Your task to perform on an android device: Go to Reddit.com Image 0: 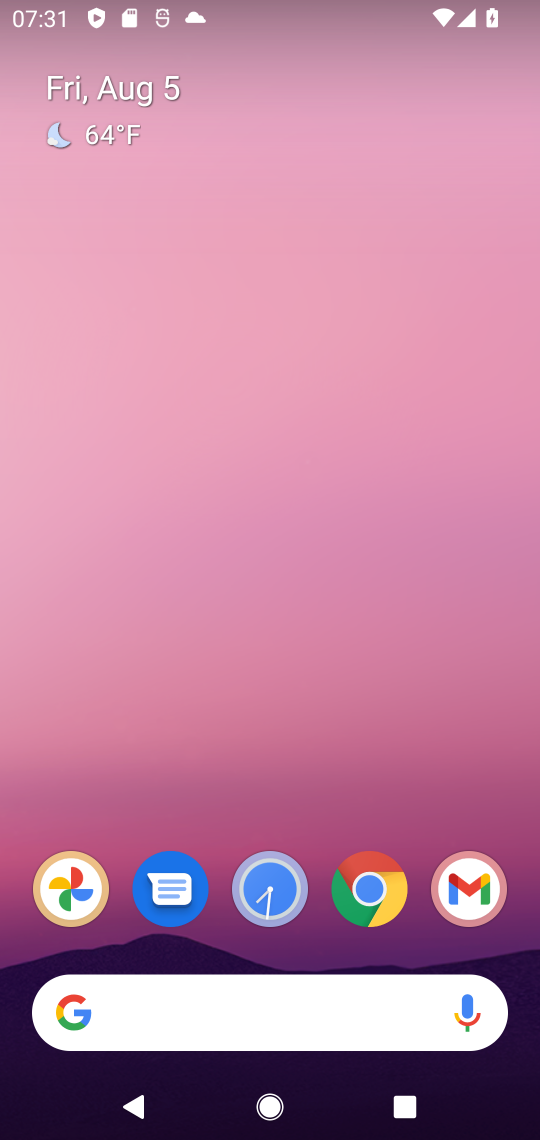
Step 0: drag from (241, 828) to (279, 392)
Your task to perform on an android device: Go to Reddit.com Image 1: 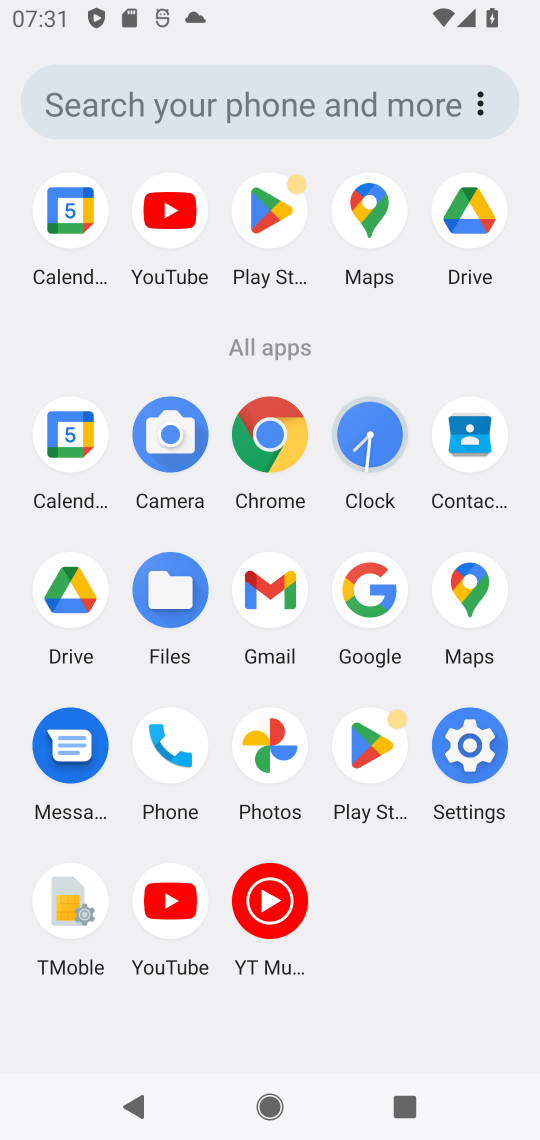
Step 1: click (351, 595)
Your task to perform on an android device: Go to Reddit.com Image 2: 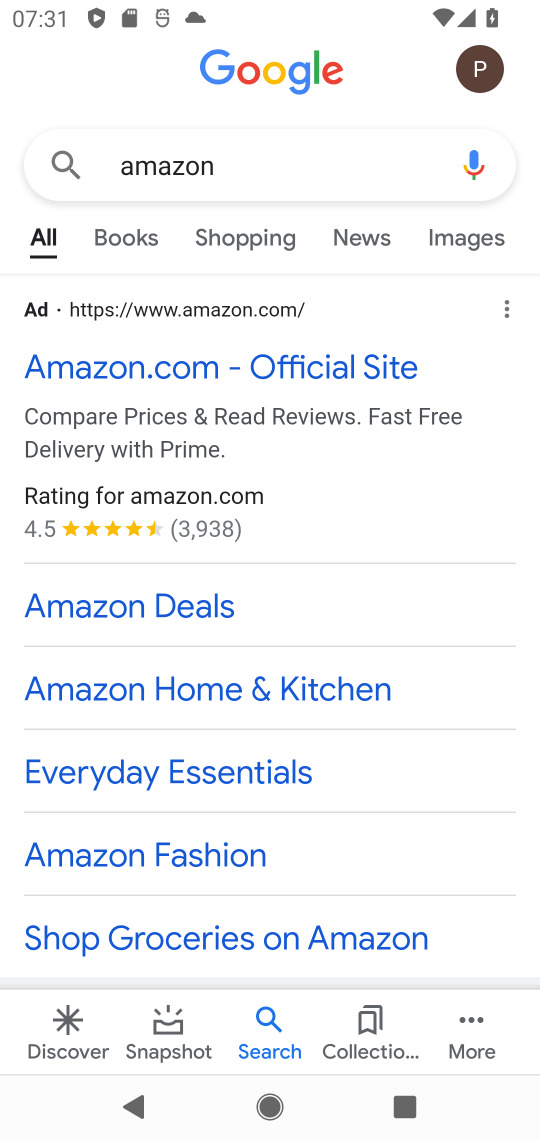
Step 2: click (193, 163)
Your task to perform on an android device: Go to Reddit.com Image 3: 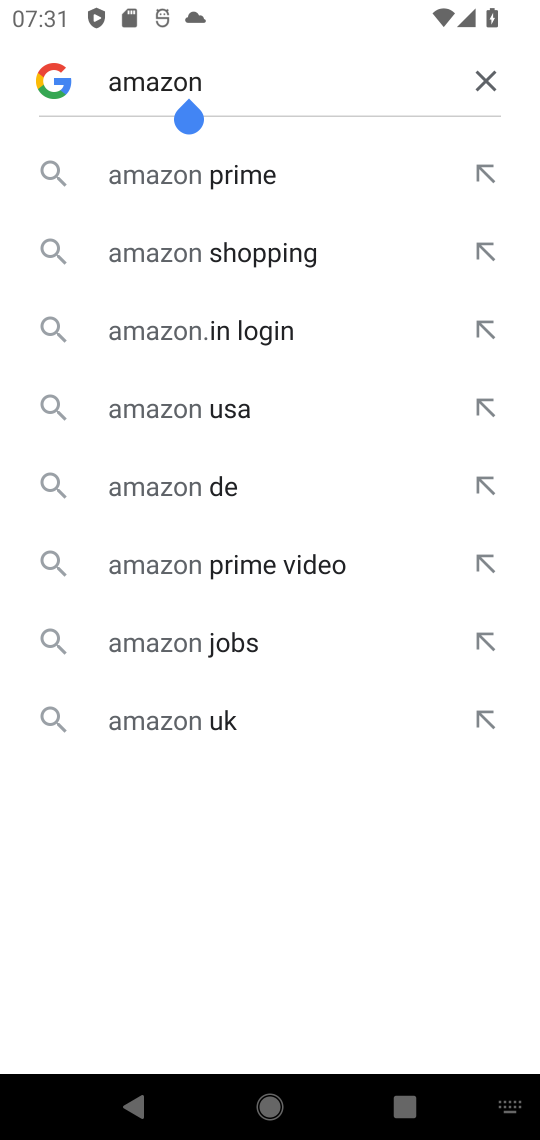
Step 3: click (479, 82)
Your task to perform on an android device: Go to Reddit.com Image 4: 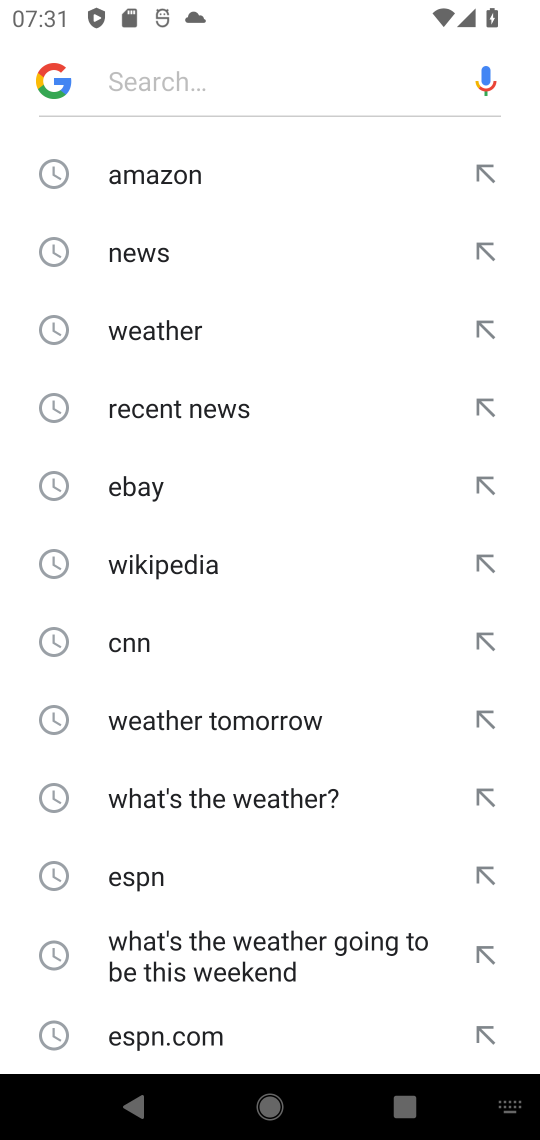
Step 4: drag from (209, 895) to (237, 265)
Your task to perform on an android device: Go to Reddit.com Image 5: 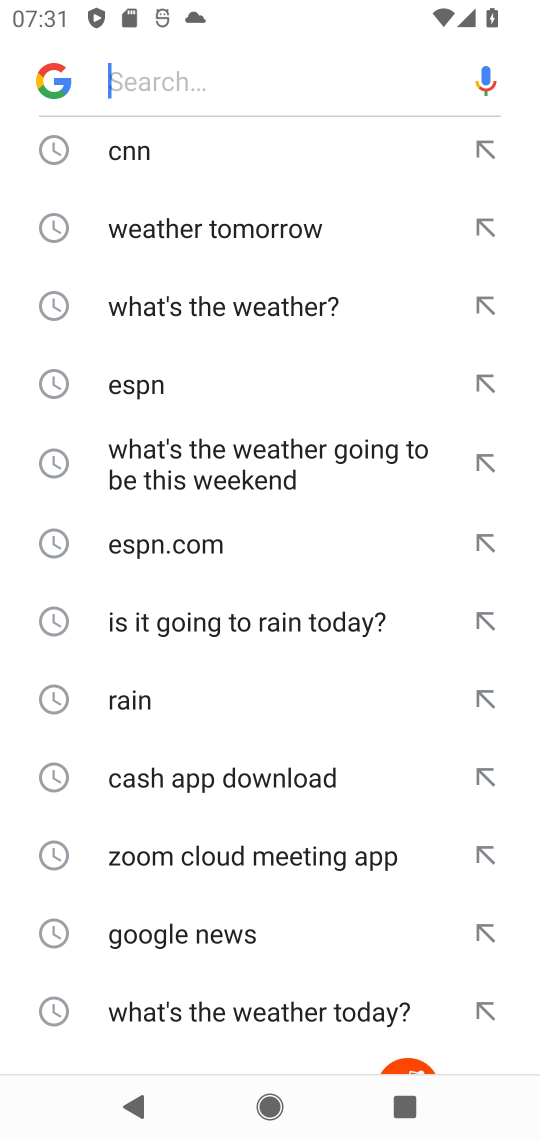
Step 5: drag from (248, 982) to (314, 413)
Your task to perform on an android device: Go to Reddit.com Image 6: 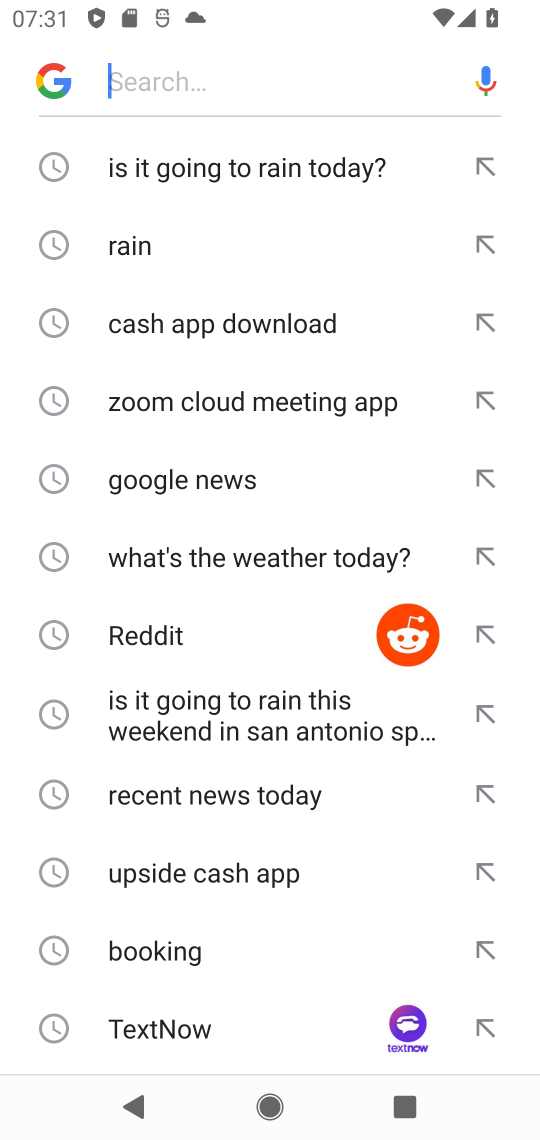
Step 6: click (151, 646)
Your task to perform on an android device: Go to Reddit.com Image 7: 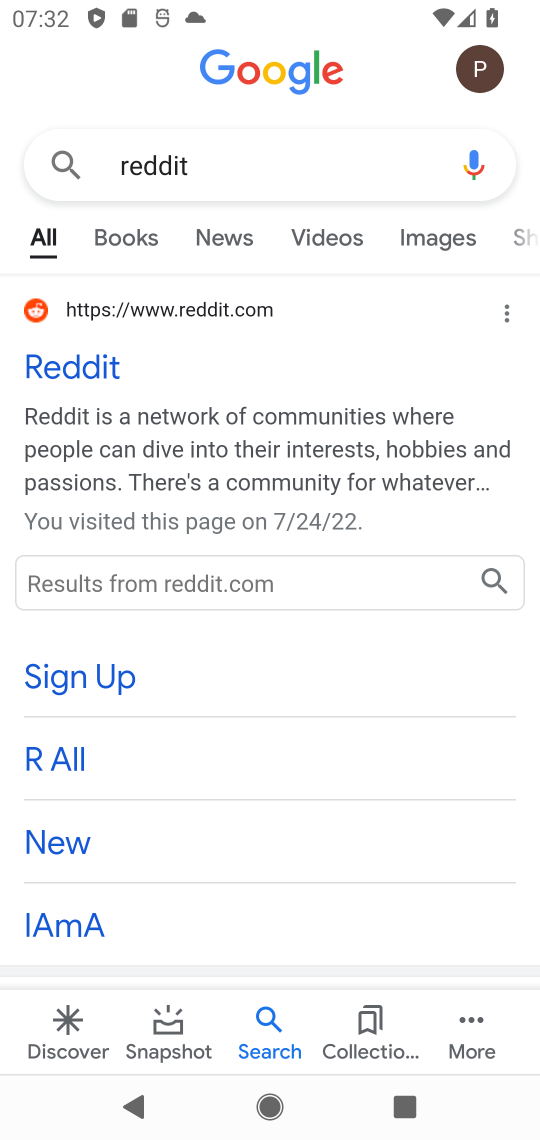
Step 7: click (39, 353)
Your task to perform on an android device: Go to Reddit.com Image 8: 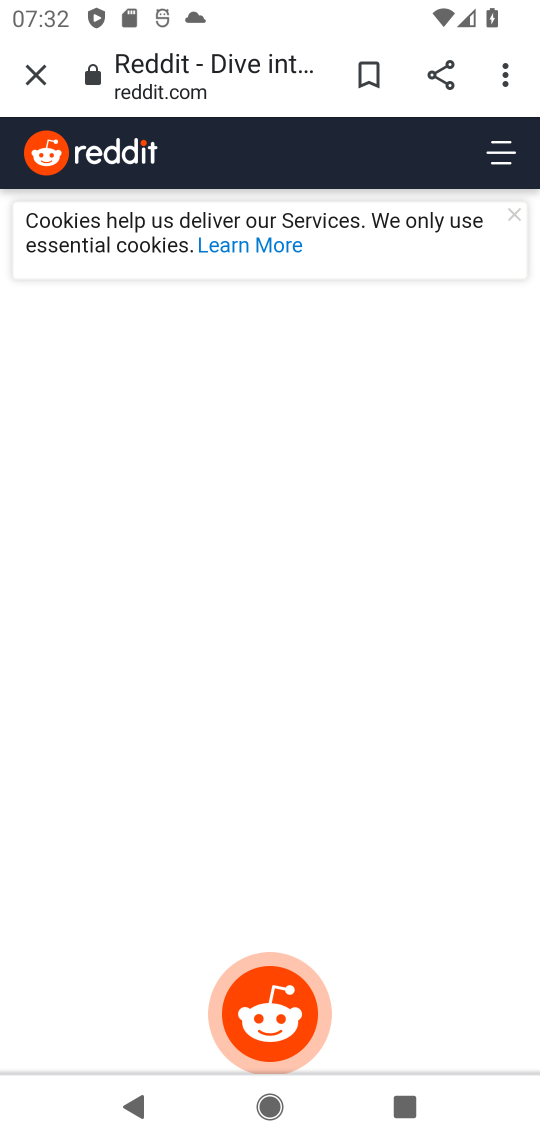
Step 8: task complete